Your task to perform on an android device: see tabs open on other devices in the chrome app Image 0: 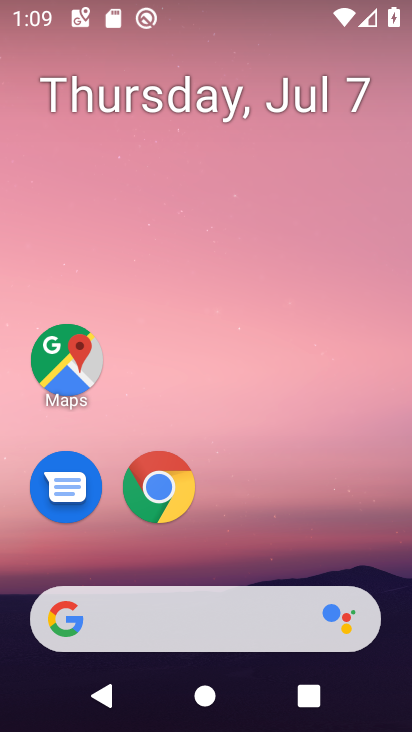
Step 0: drag from (362, 506) to (375, 74)
Your task to perform on an android device: see tabs open on other devices in the chrome app Image 1: 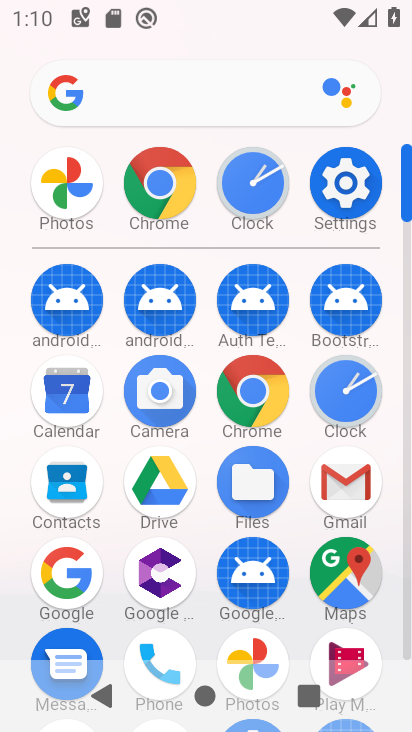
Step 1: click (257, 405)
Your task to perform on an android device: see tabs open on other devices in the chrome app Image 2: 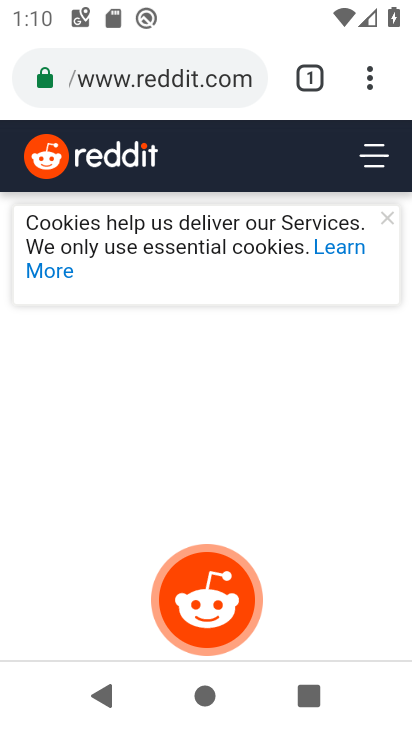
Step 2: click (371, 82)
Your task to perform on an android device: see tabs open on other devices in the chrome app Image 3: 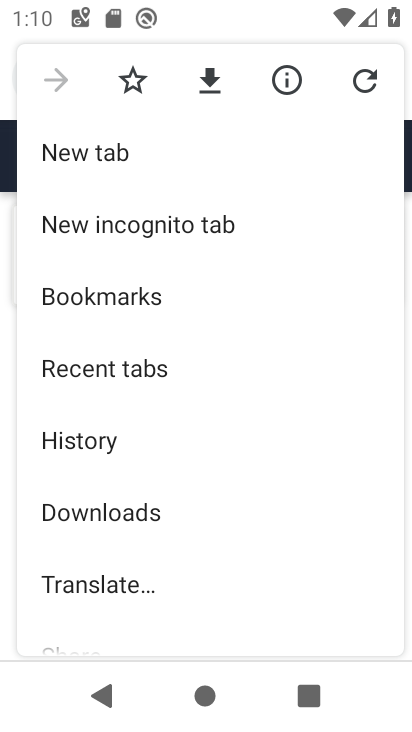
Step 3: drag from (290, 560) to (276, 314)
Your task to perform on an android device: see tabs open on other devices in the chrome app Image 4: 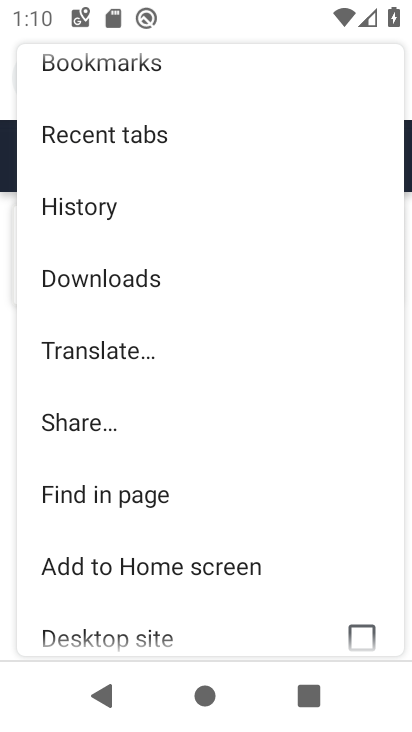
Step 4: drag from (317, 565) to (316, 321)
Your task to perform on an android device: see tabs open on other devices in the chrome app Image 5: 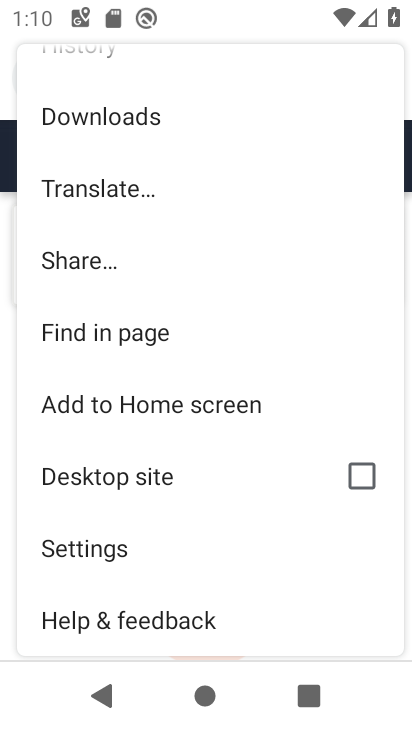
Step 5: drag from (299, 565) to (298, 384)
Your task to perform on an android device: see tabs open on other devices in the chrome app Image 6: 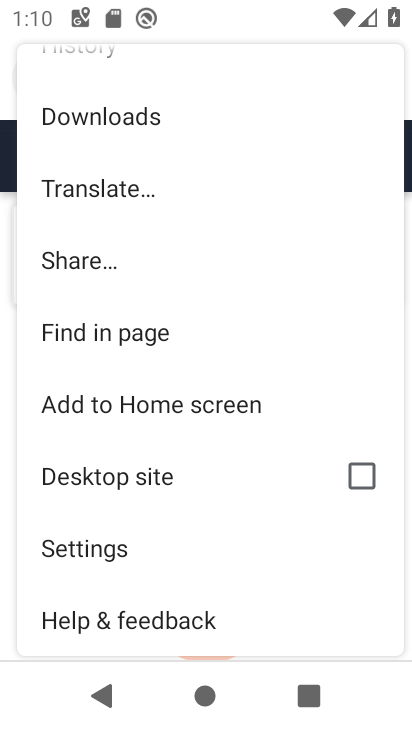
Step 6: drag from (280, 244) to (298, 535)
Your task to perform on an android device: see tabs open on other devices in the chrome app Image 7: 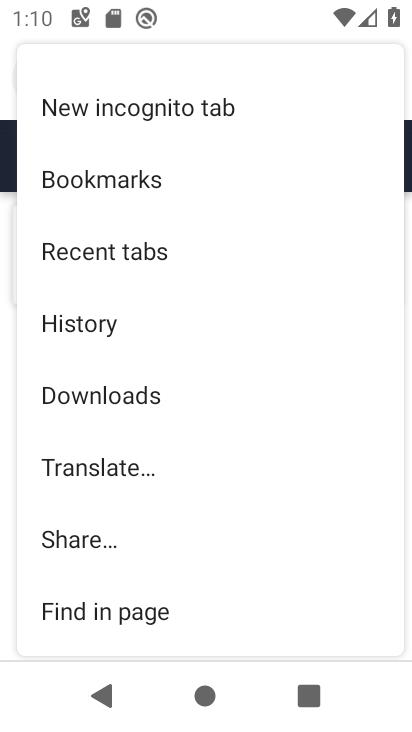
Step 7: drag from (265, 229) to (287, 473)
Your task to perform on an android device: see tabs open on other devices in the chrome app Image 8: 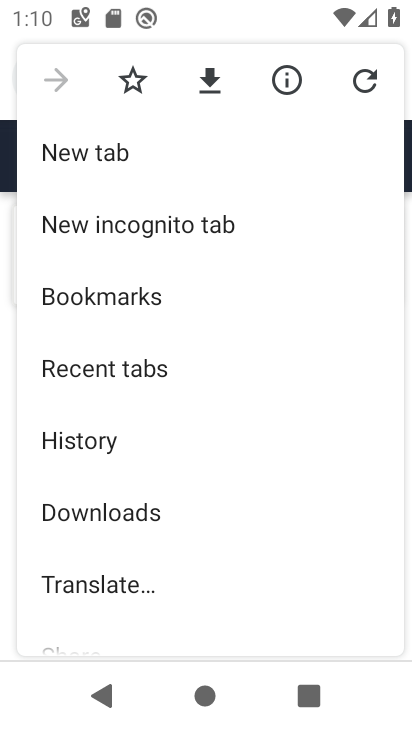
Step 8: click (162, 376)
Your task to perform on an android device: see tabs open on other devices in the chrome app Image 9: 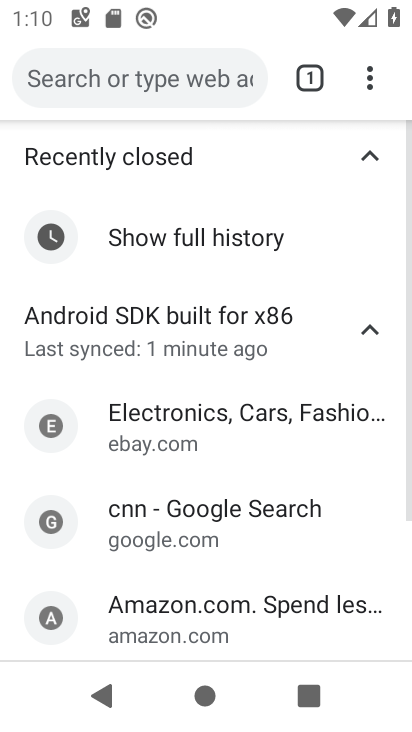
Step 9: click (313, 83)
Your task to perform on an android device: see tabs open on other devices in the chrome app Image 10: 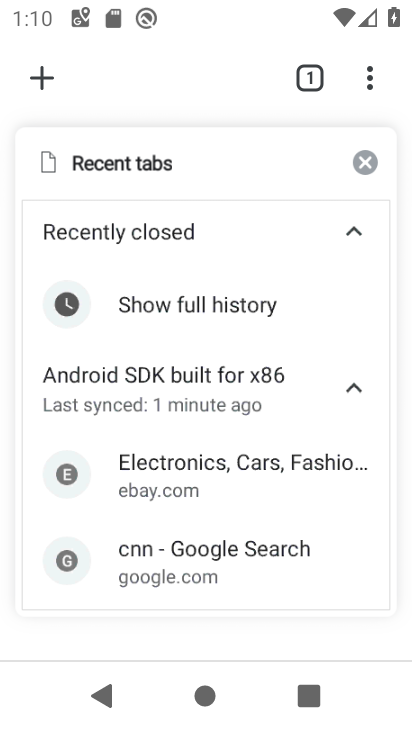
Step 10: task complete